Your task to perform on an android device: open a new tab in the chrome app Image 0: 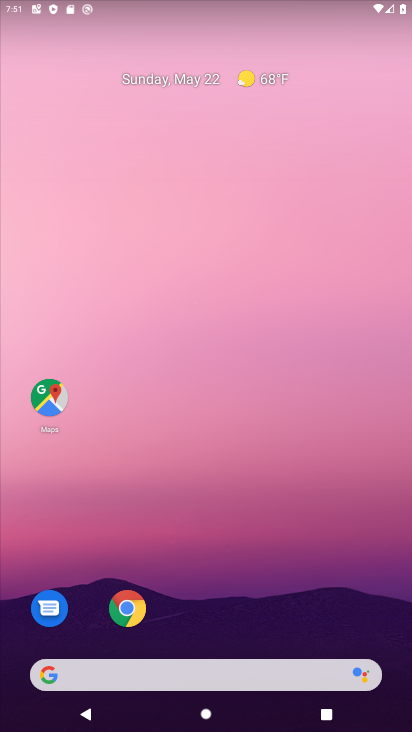
Step 0: click (128, 612)
Your task to perform on an android device: open a new tab in the chrome app Image 1: 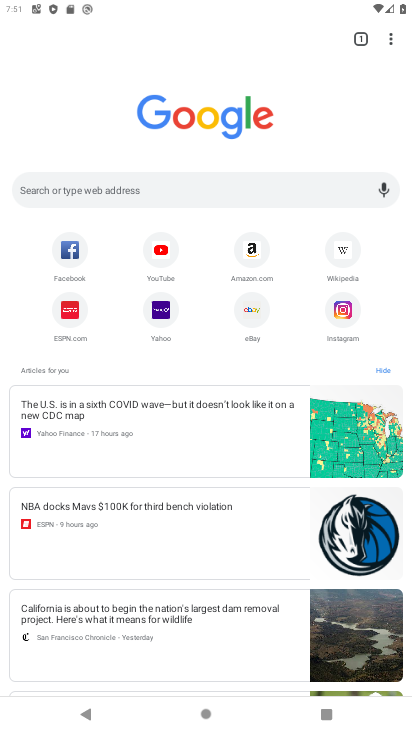
Step 1: click (391, 44)
Your task to perform on an android device: open a new tab in the chrome app Image 2: 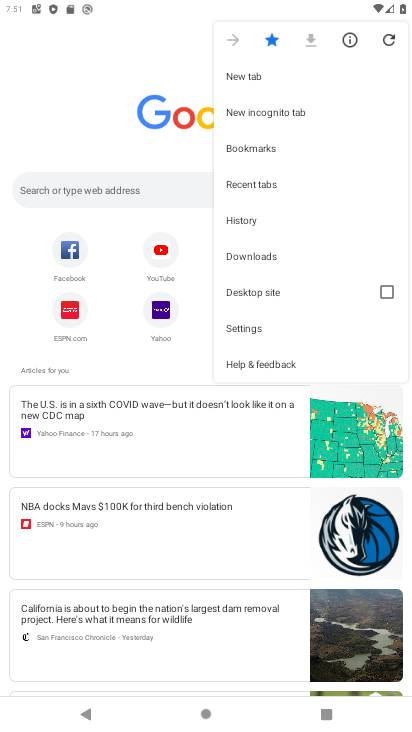
Step 2: click (235, 72)
Your task to perform on an android device: open a new tab in the chrome app Image 3: 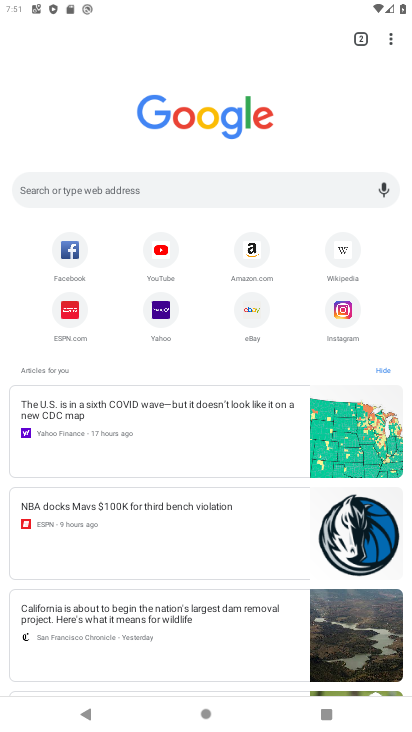
Step 3: task complete